Your task to perform on an android device: find snoozed emails in the gmail app Image 0: 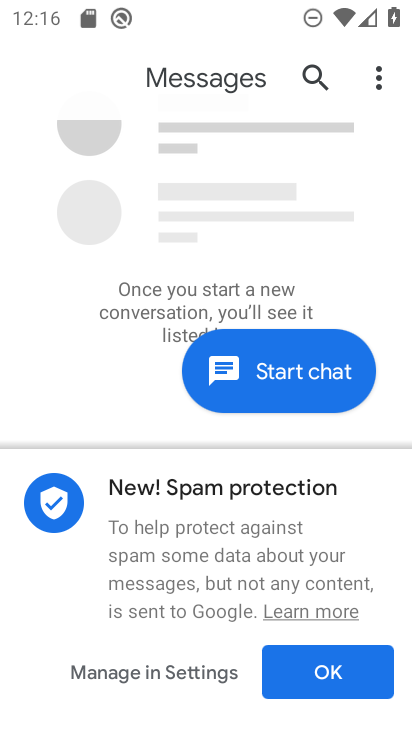
Step 0: press home button
Your task to perform on an android device: find snoozed emails in the gmail app Image 1: 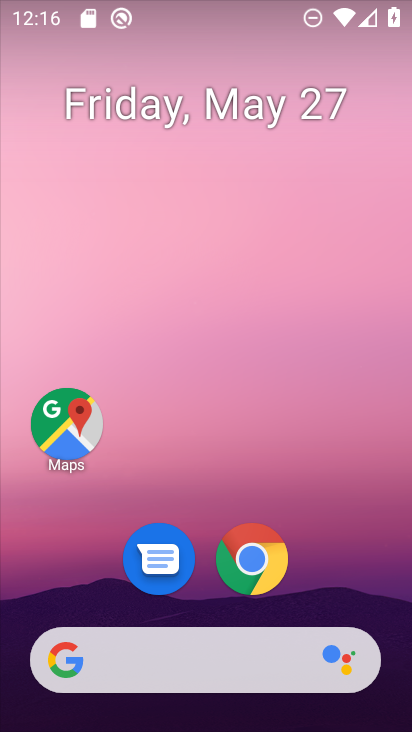
Step 1: drag from (338, 545) to (331, 180)
Your task to perform on an android device: find snoozed emails in the gmail app Image 2: 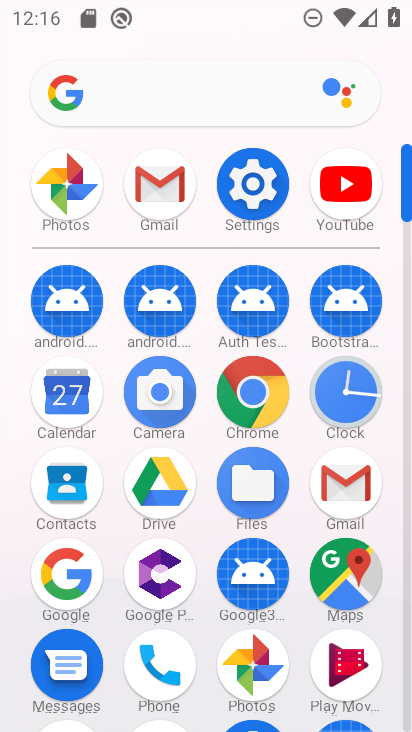
Step 2: click (345, 477)
Your task to perform on an android device: find snoozed emails in the gmail app Image 3: 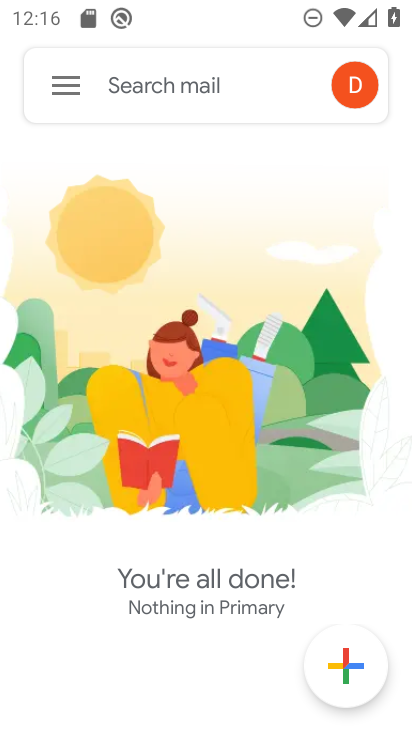
Step 3: click (52, 81)
Your task to perform on an android device: find snoozed emails in the gmail app Image 4: 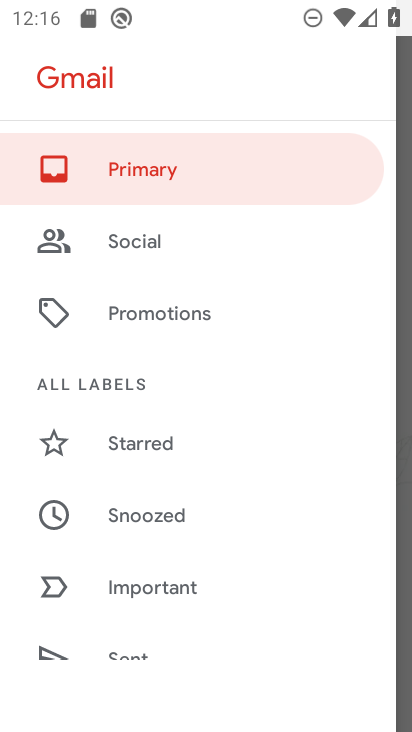
Step 4: click (174, 512)
Your task to perform on an android device: find snoozed emails in the gmail app Image 5: 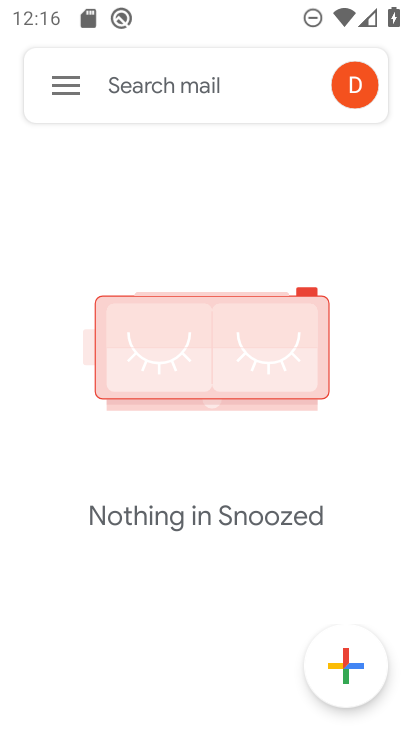
Step 5: task complete